Your task to perform on an android device: check the backup settings in the google photos Image 0: 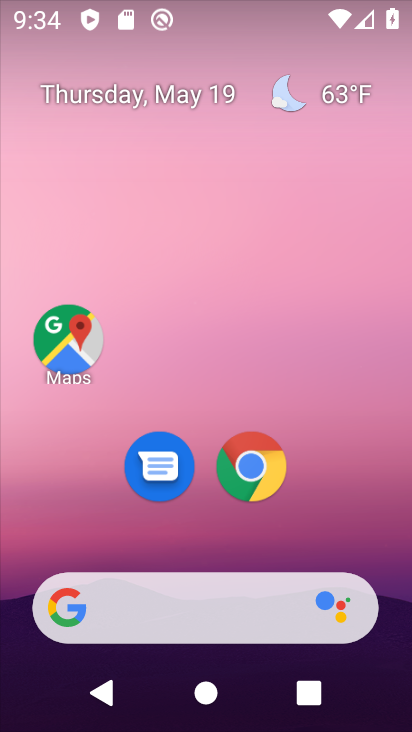
Step 0: drag from (391, 625) to (276, 19)
Your task to perform on an android device: check the backup settings in the google photos Image 1: 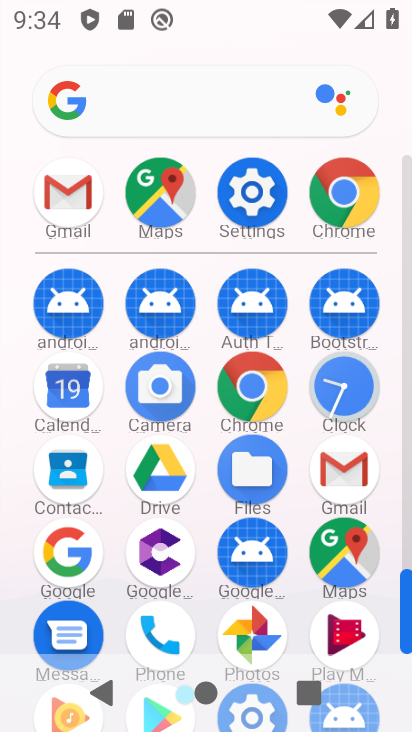
Step 1: click (251, 634)
Your task to perform on an android device: check the backup settings in the google photos Image 2: 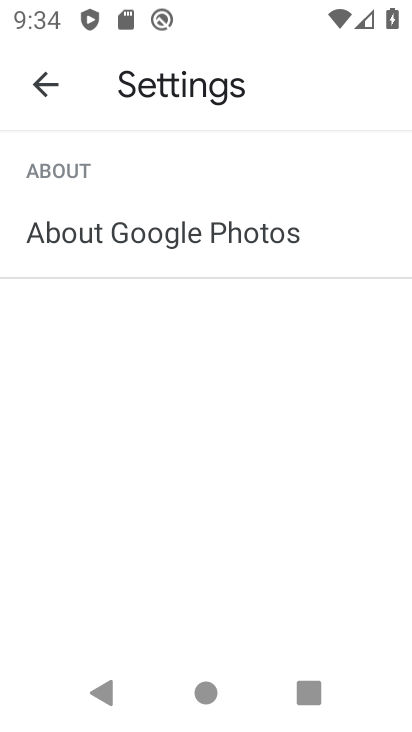
Step 2: press back button
Your task to perform on an android device: check the backup settings in the google photos Image 3: 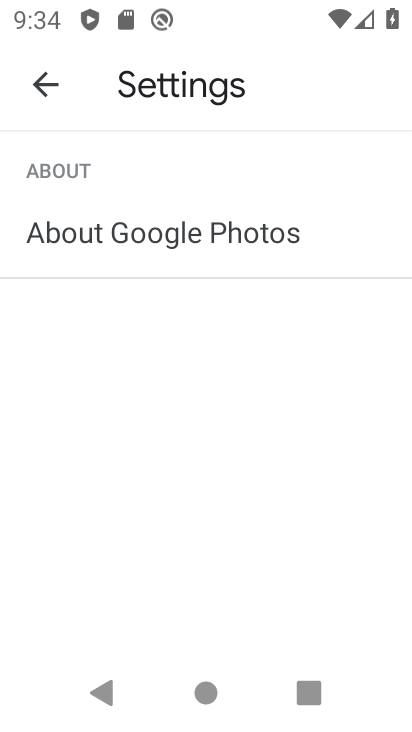
Step 3: press back button
Your task to perform on an android device: check the backup settings in the google photos Image 4: 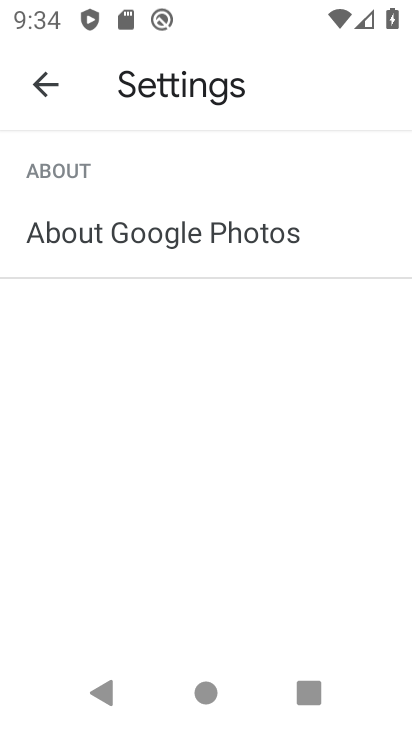
Step 4: press back button
Your task to perform on an android device: check the backup settings in the google photos Image 5: 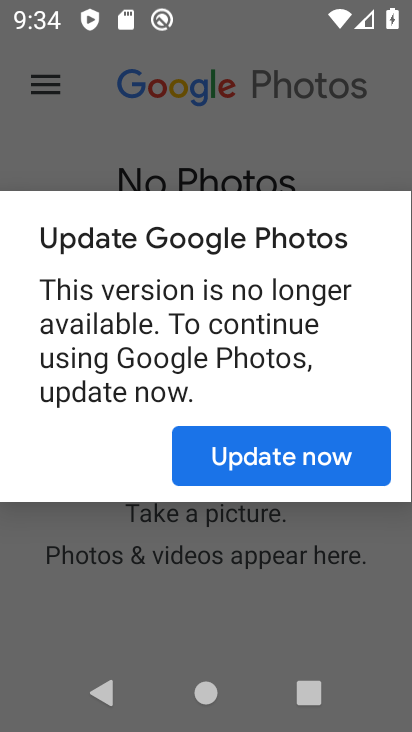
Step 5: click (248, 471)
Your task to perform on an android device: check the backup settings in the google photos Image 6: 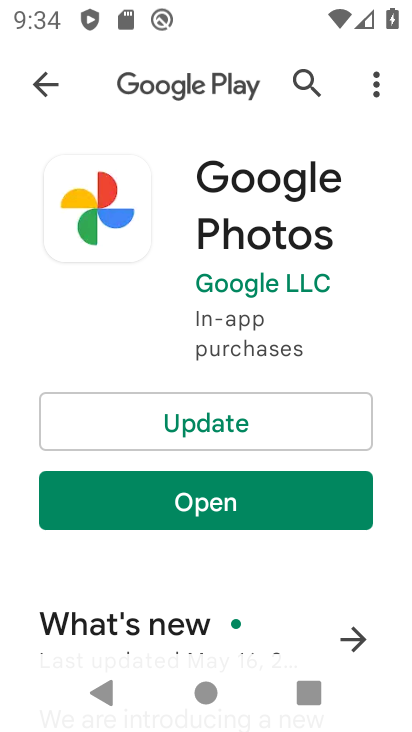
Step 6: click (244, 418)
Your task to perform on an android device: check the backup settings in the google photos Image 7: 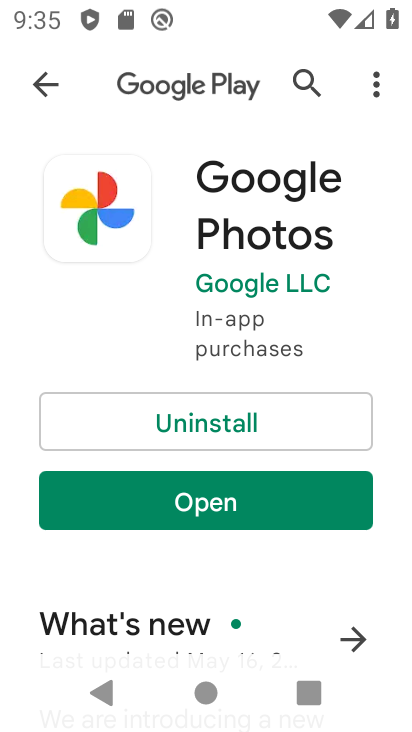
Step 7: click (259, 487)
Your task to perform on an android device: check the backup settings in the google photos Image 8: 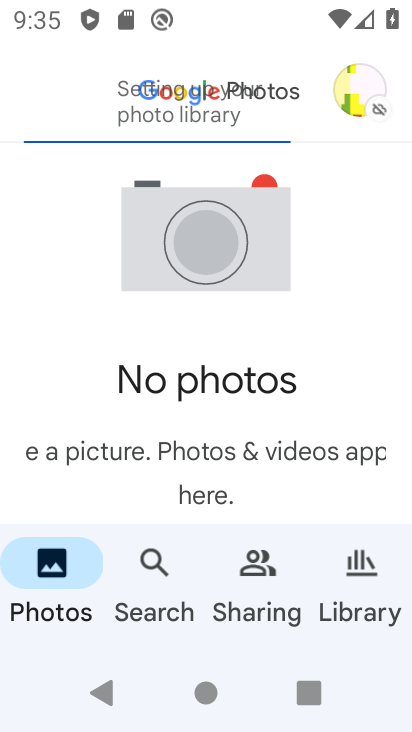
Step 8: click (370, 86)
Your task to perform on an android device: check the backup settings in the google photos Image 9: 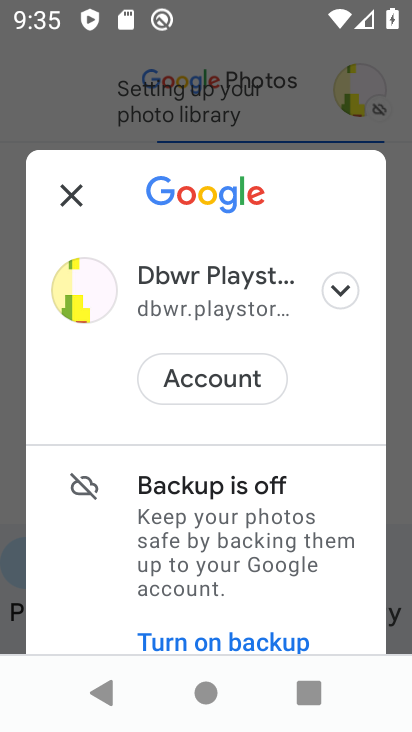
Step 9: click (240, 585)
Your task to perform on an android device: check the backup settings in the google photos Image 10: 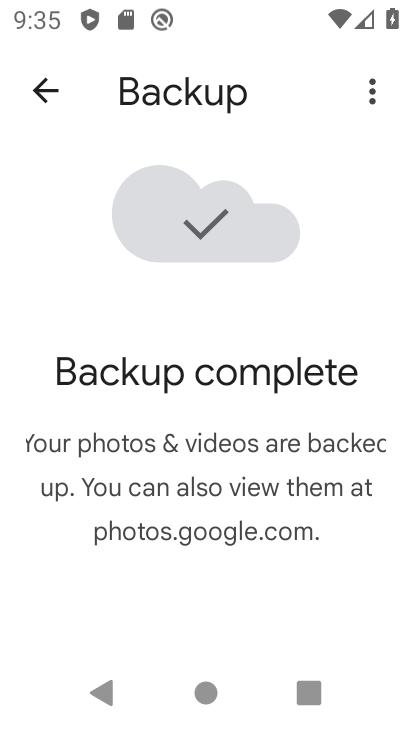
Step 10: task complete